Your task to perform on an android device: Go to Reddit.com Image 0: 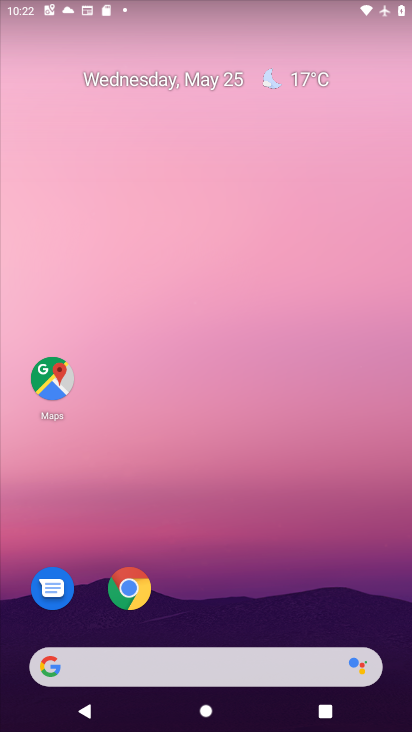
Step 0: drag from (373, 582) to (374, 118)
Your task to perform on an android device: Go to Reddit.com Image 1: 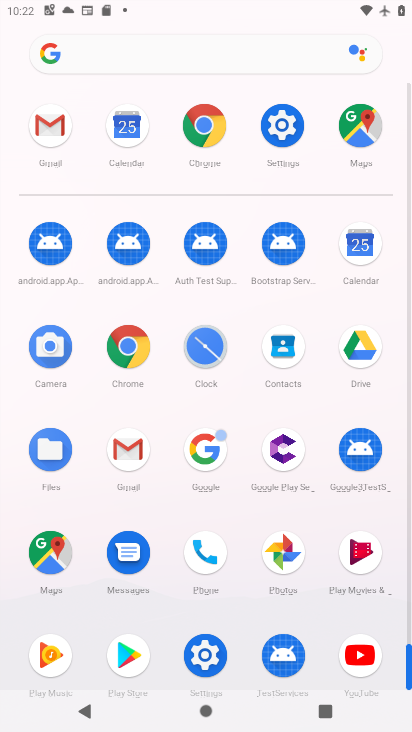
Step 1: click (133, 365)
Your task to perform on an android device: Go to Reddit.com Image 2: 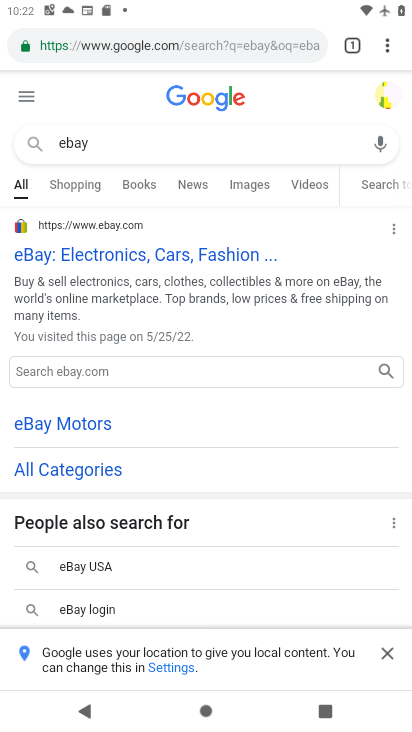
Step 2: click (207, 52)
Your task to perform on an android device: Go to Reddit.com Image 3: 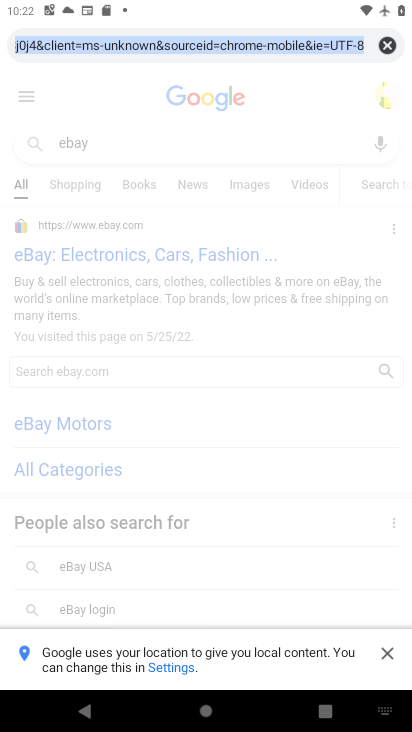
Step 3: click (382, 48)
Your task to perform on an android device: Go to Reddit.com Image 4: 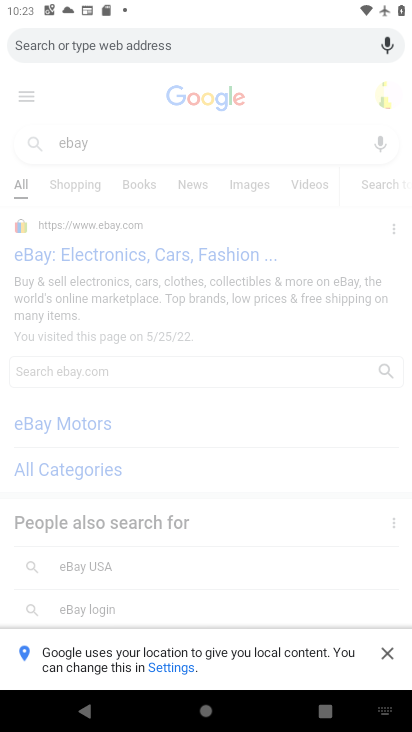
Step 4: type "reddit.com"
Your task to perform on an android device: Go to Reddit.com Image 5: 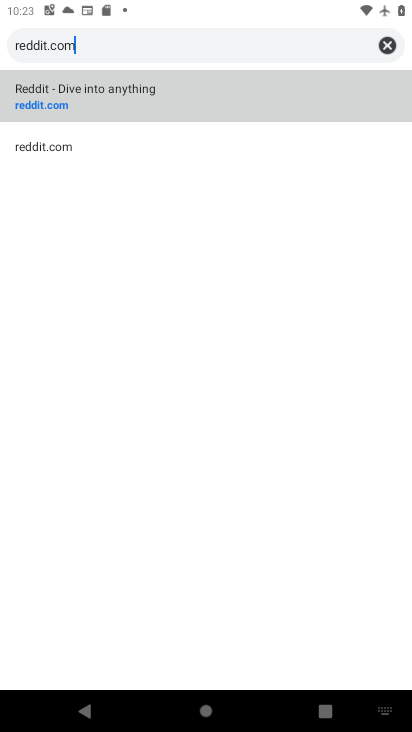
Step 5: click (140, 99)
Your task to perform on an android device: Go to Reddit.com Image 6: 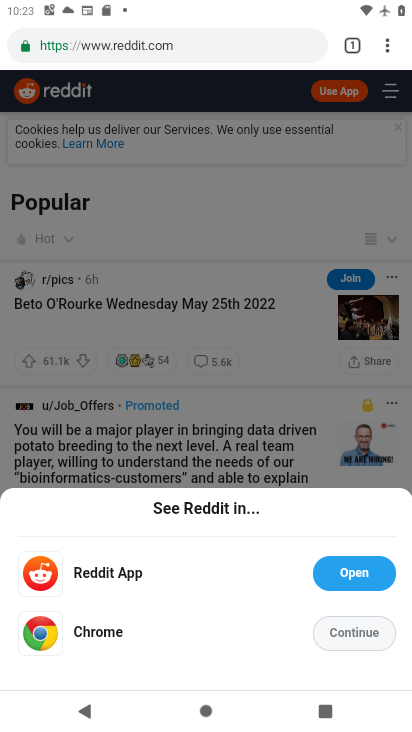
Step 6: task complete